Your task to perform on an android device: Open settings Image 0: 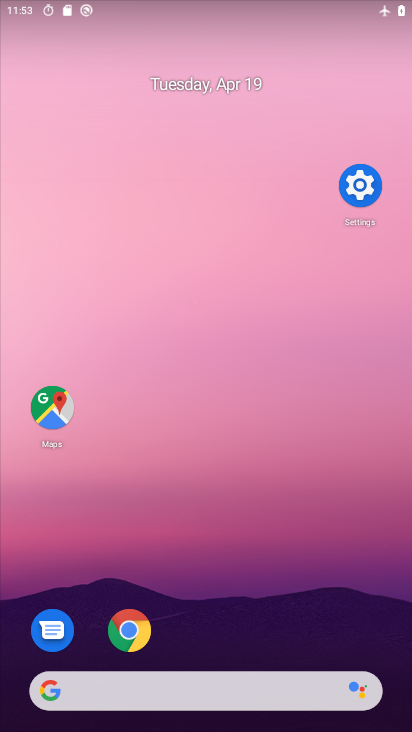
Step 0: drag from (260, 522) to (263, 364)
Your task to perform on an android device: Open settings Image 1: 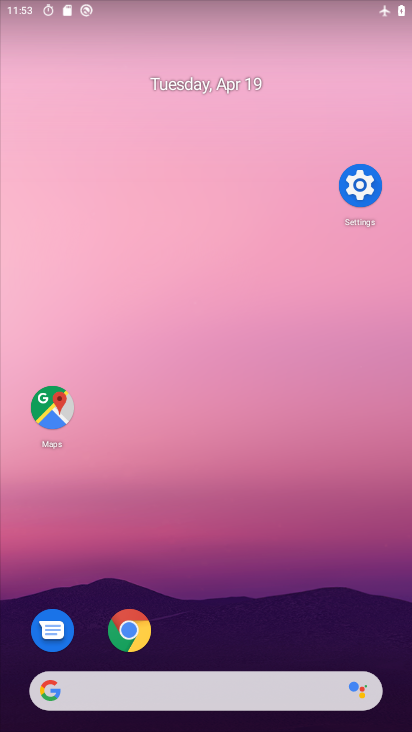
Step 1: drag from (198, 543) to (259, 76)
Your task to perform on an android device: Open settings Image 2: 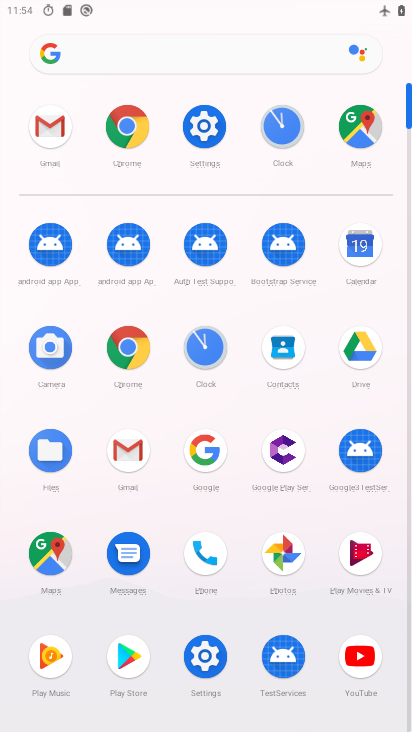
Step 2: click (216, 141)
Your task to perform on an android device: Open settings Image 3: 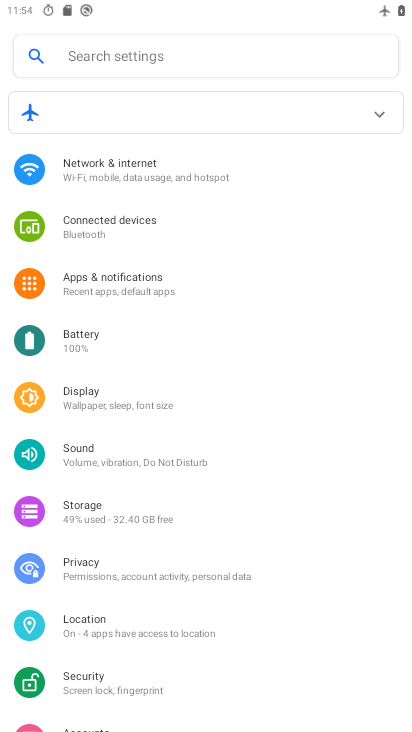
Step 3: task complete